Your task to perform on an android device: turn on showing notifications on the lock screen Image 0: 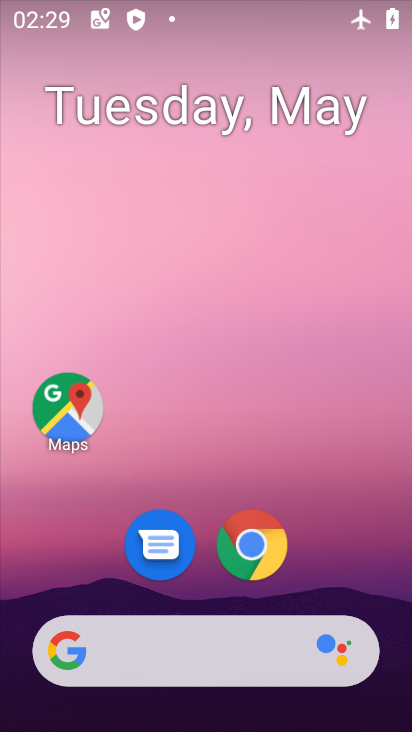
Step 0: drag from (390, 636) to (322, 75)
Your task to perform on an android device: turn on showing notifications on the lock screen Image 1: 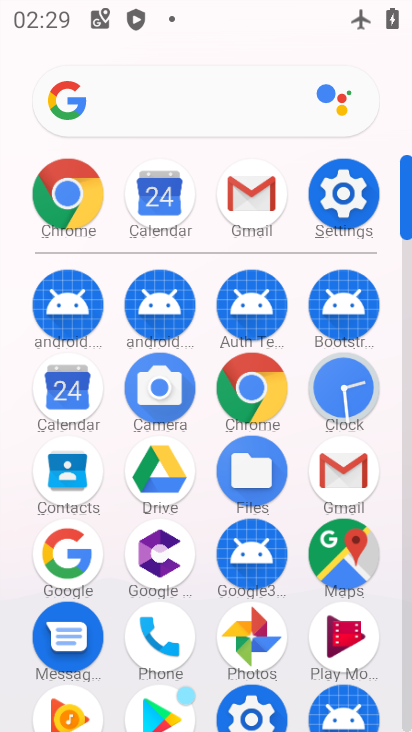
Step 1: click (407, 702)
Your task to perform on an android device: turn on showing notifications on the lock screen Image 2: 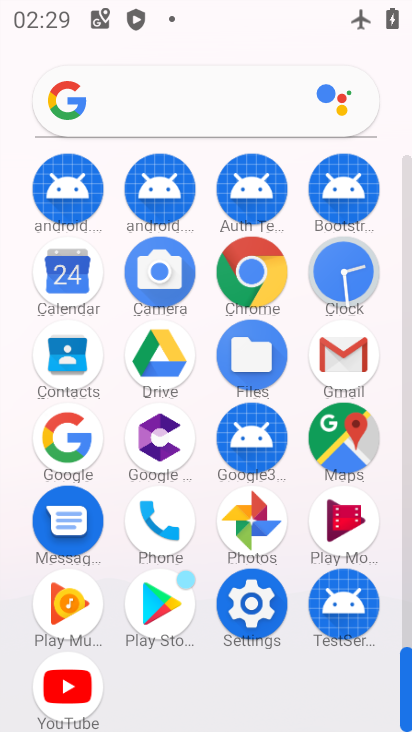
Step 2: click (254, 603)
Your task to perform on an android device: turn on showing notifications on the lock screen Image 3: 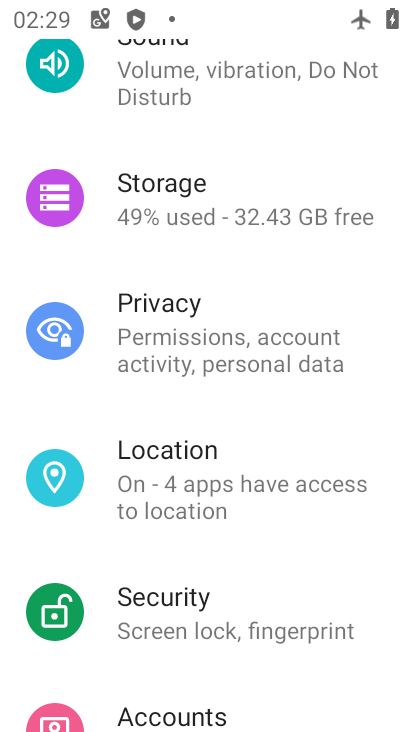
Step 3: drag from (393, 133) to (368, 584)
Your task to perform on an android device: turn on showing notifications on the lock screen Image 4: 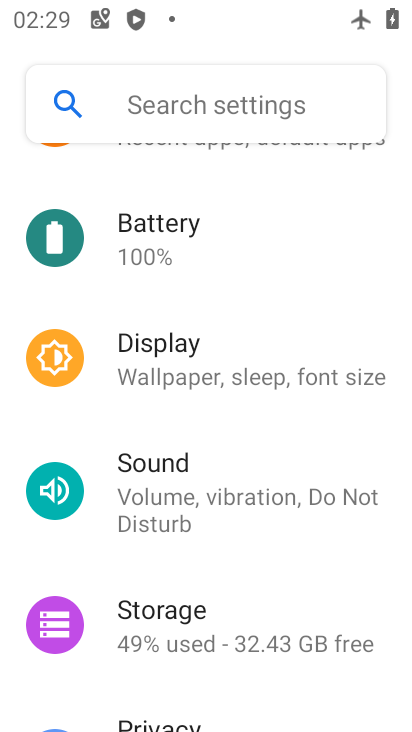
Step 4: drag from (342, 265) to (373, 529)
Your task to perform on an android device: turn on showing notifications on the lock screen Image 5: 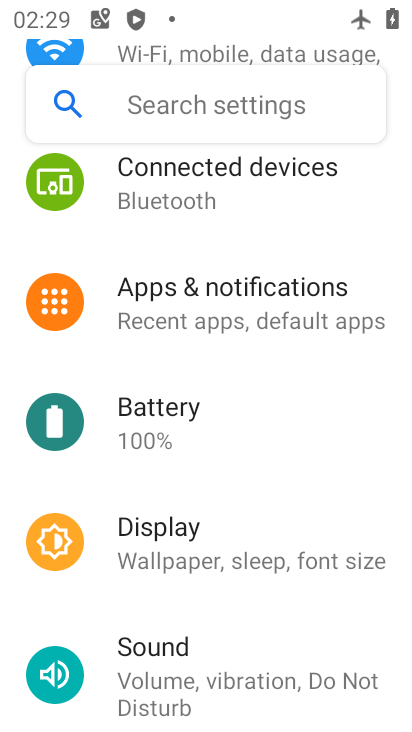
Step 5: click (189, 290)
Your task to perform on an android device: turn on showing notifications on the lock screen Image 6: 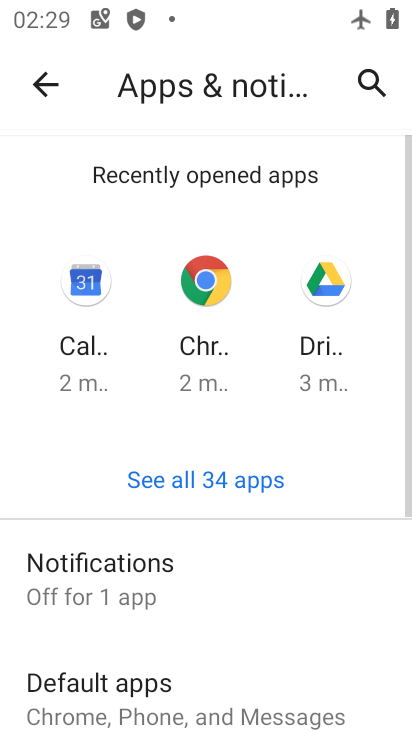
Step 6: click (97, 560)
Your task to perform on an android device: turn on showing notifications on the lock screen Image 7: 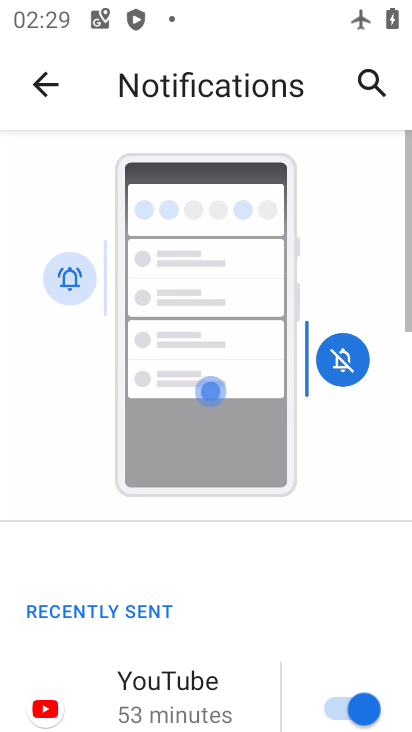
Step 7: drag from (318, 673) to (260, 51)
Your task to perform on an android device: turn on showing notifications on the lock screen Image 8: 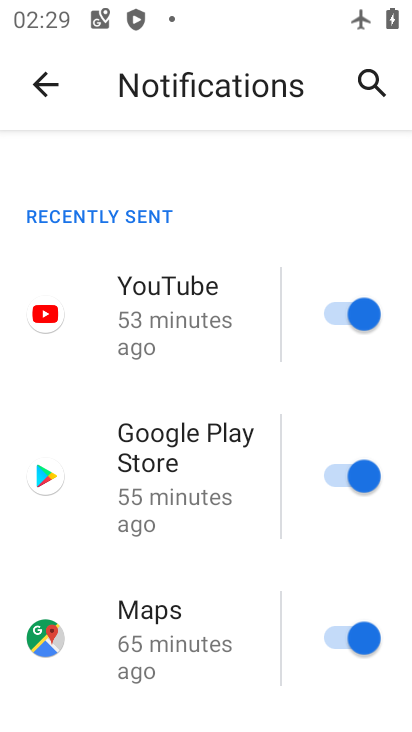
Step 8: drag from (266, 688) to (287, 82)
Your task to perform on an android device: turn on showing notifications on the lock screen Image 9: 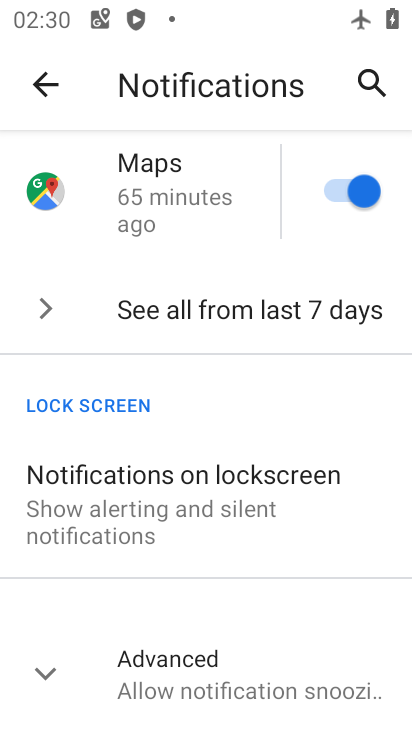
Step 9: click (140, 512)
Your task to perform on an android device: turn on showing notifications on the lock screen Image 10: 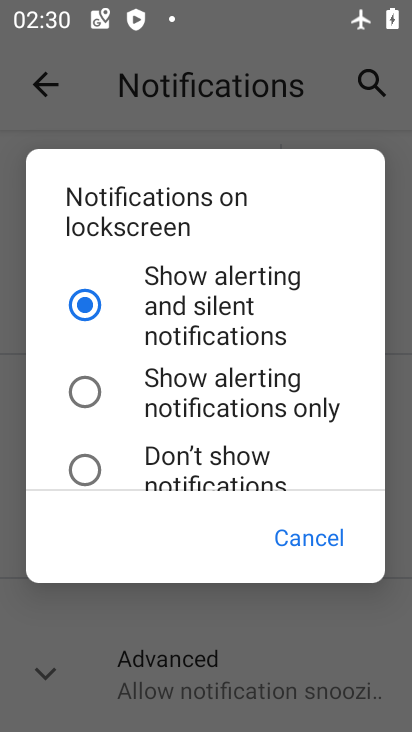
Step 10: task complete